Your task to perform on an android device: Open display settings Image 0: 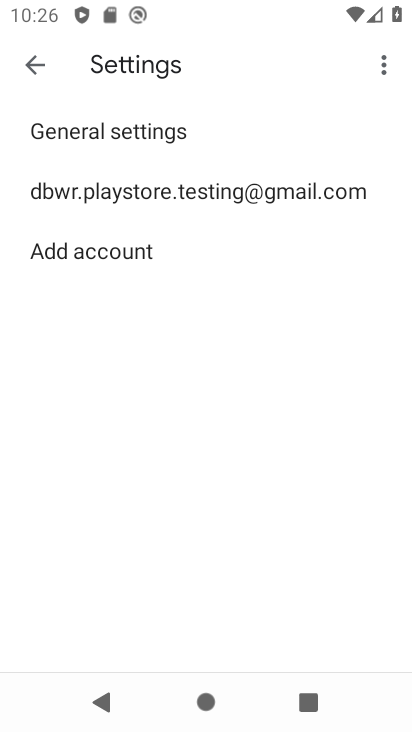
Step 0: press home button
Your task to perform on an android device: Open display settings Image 1: 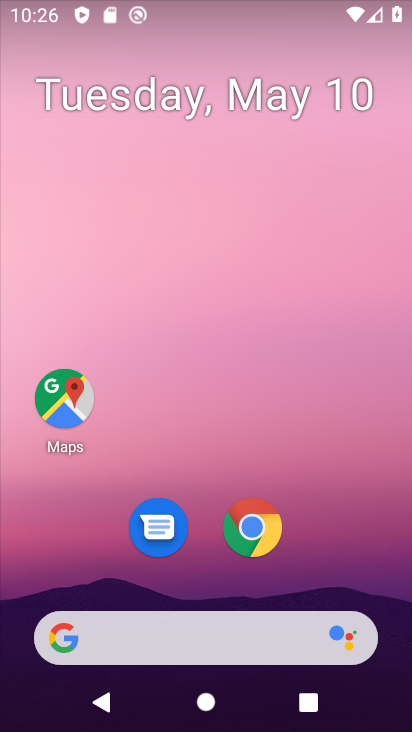
Step 1: drag from (329, 562) to (316, 125)
Your task to perform on an android device: Open display settings Image 2: 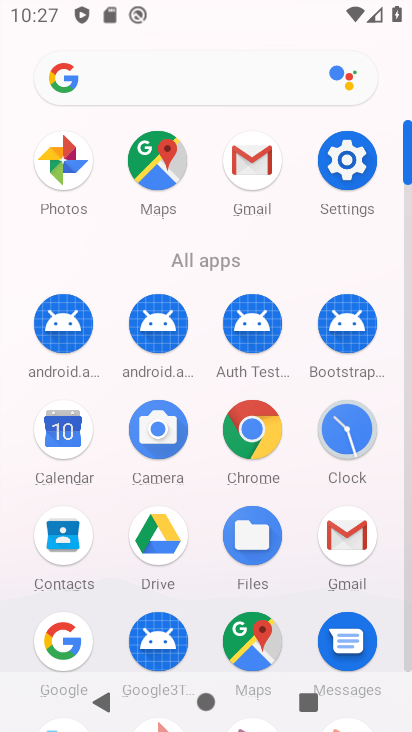
Step 2: click (359, 159)
Your task to perform on an android device: Open display settings Image 3: 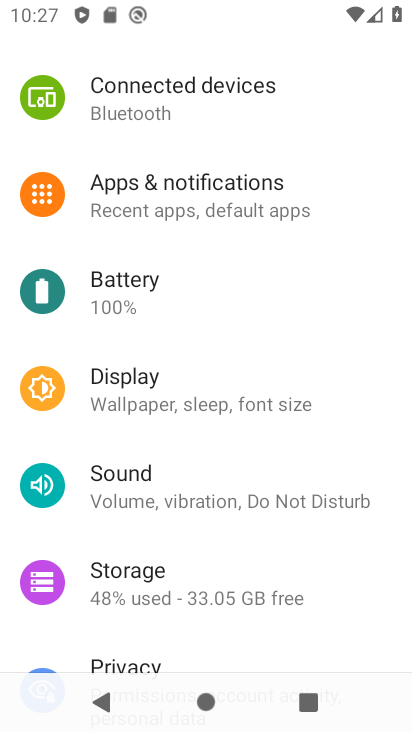
Step 3: click (153, 386)
Your task to perform on an android device: Open display settings Image 4: 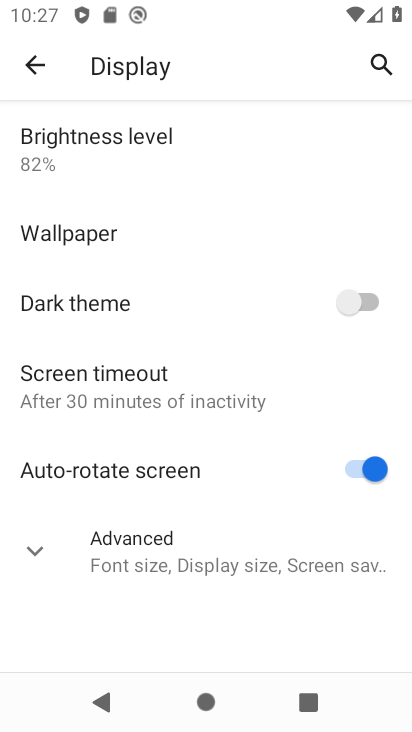
Step 4: task complete